Your task to perform on an android device: Search for "razer kraken" on walmart.com, select the first entry, and add it to the cart. Image 0: 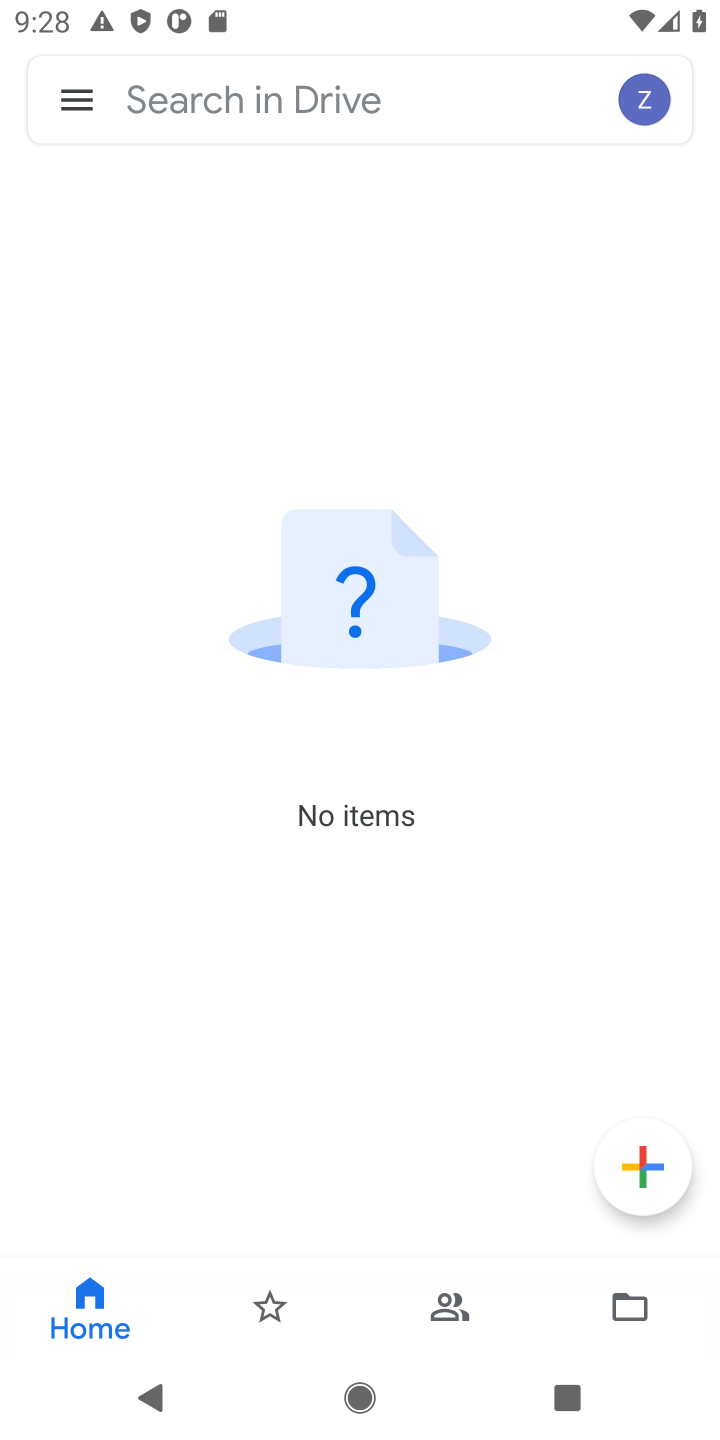
Step 0: press home button
Your task to perform on an android device: Search for "razer kraken" on walmart.com, select the first entry, and add it to the cart. Image 1: 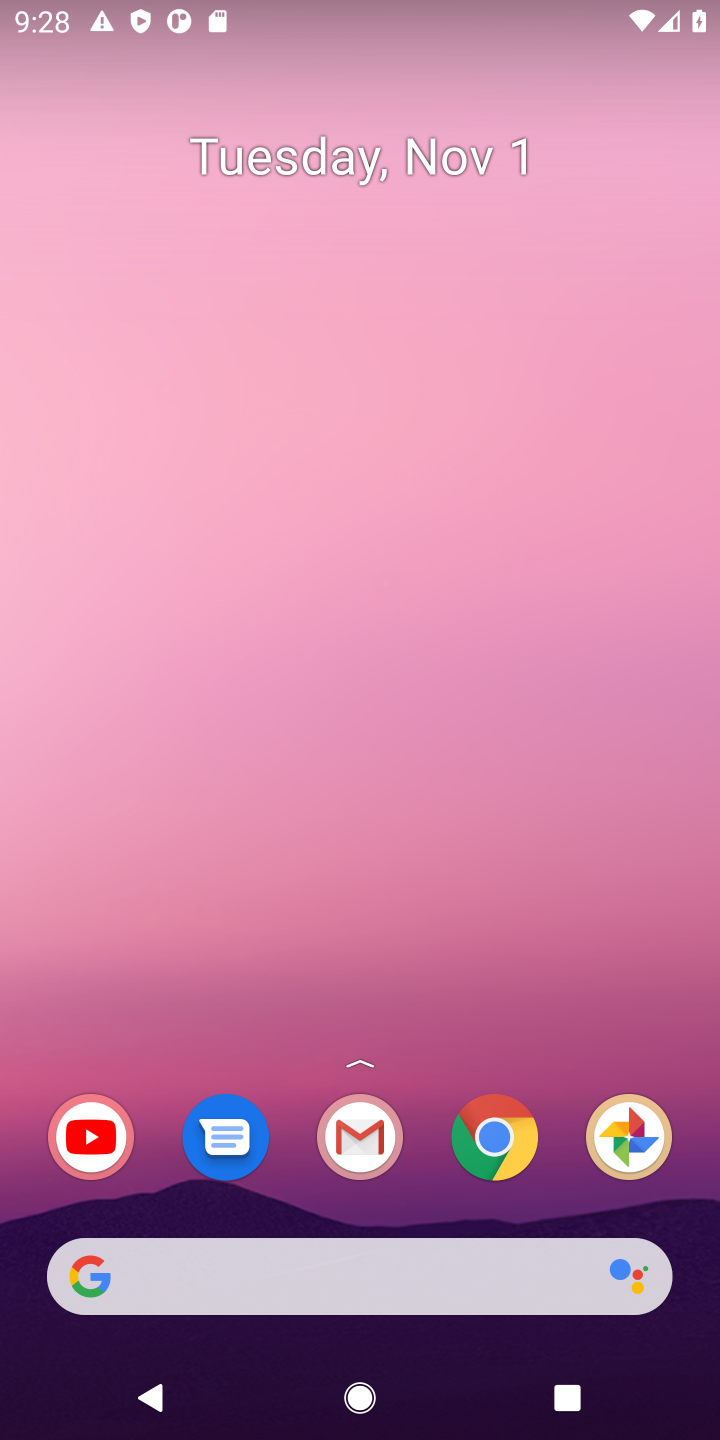
Step 1: click (518, 1136)
Your task to perform on an android device: Search for "razer kraken" on walmart.com, select the first entry, and add it to the cart. Image 2: 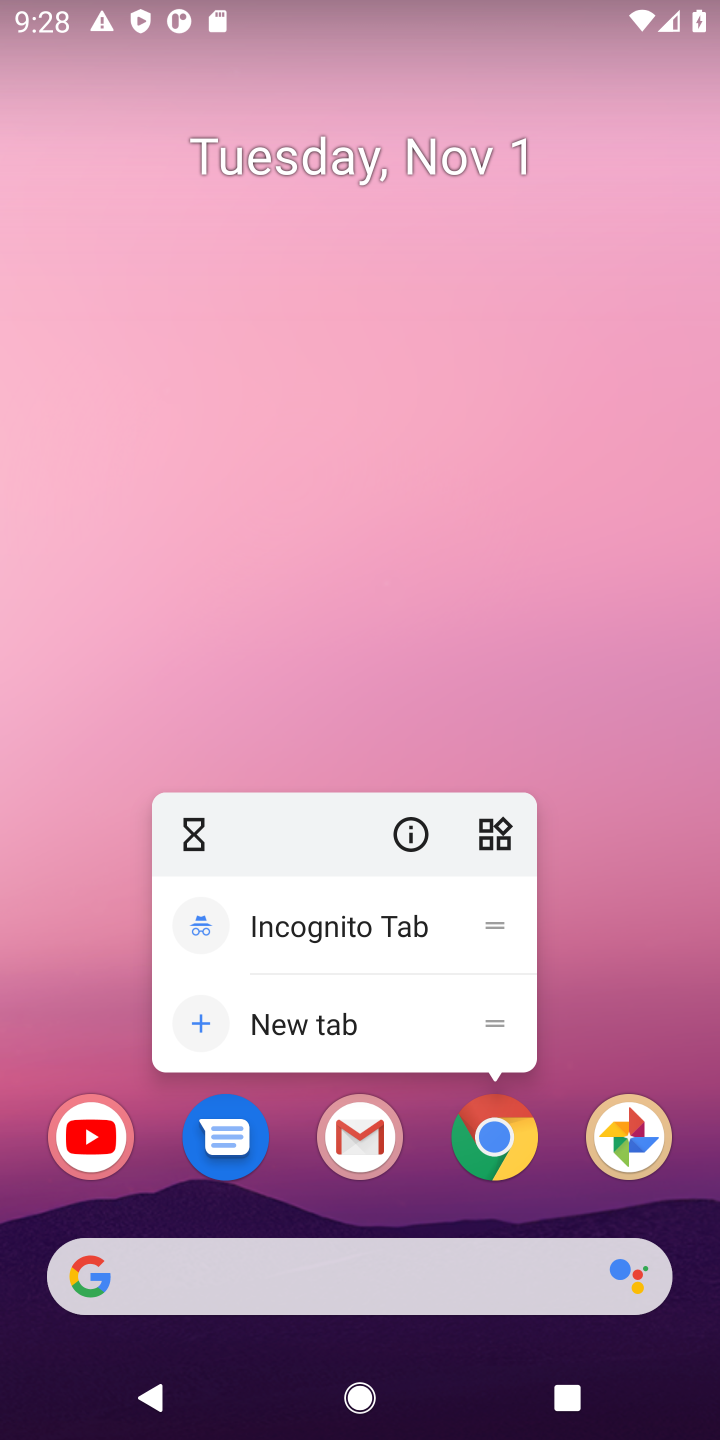
Step 2: click (518, 1137)
Your task to perform on an android device: Search for "razer kraken" on walmart.com, select the first entry, and add it to the cart. Image 3: 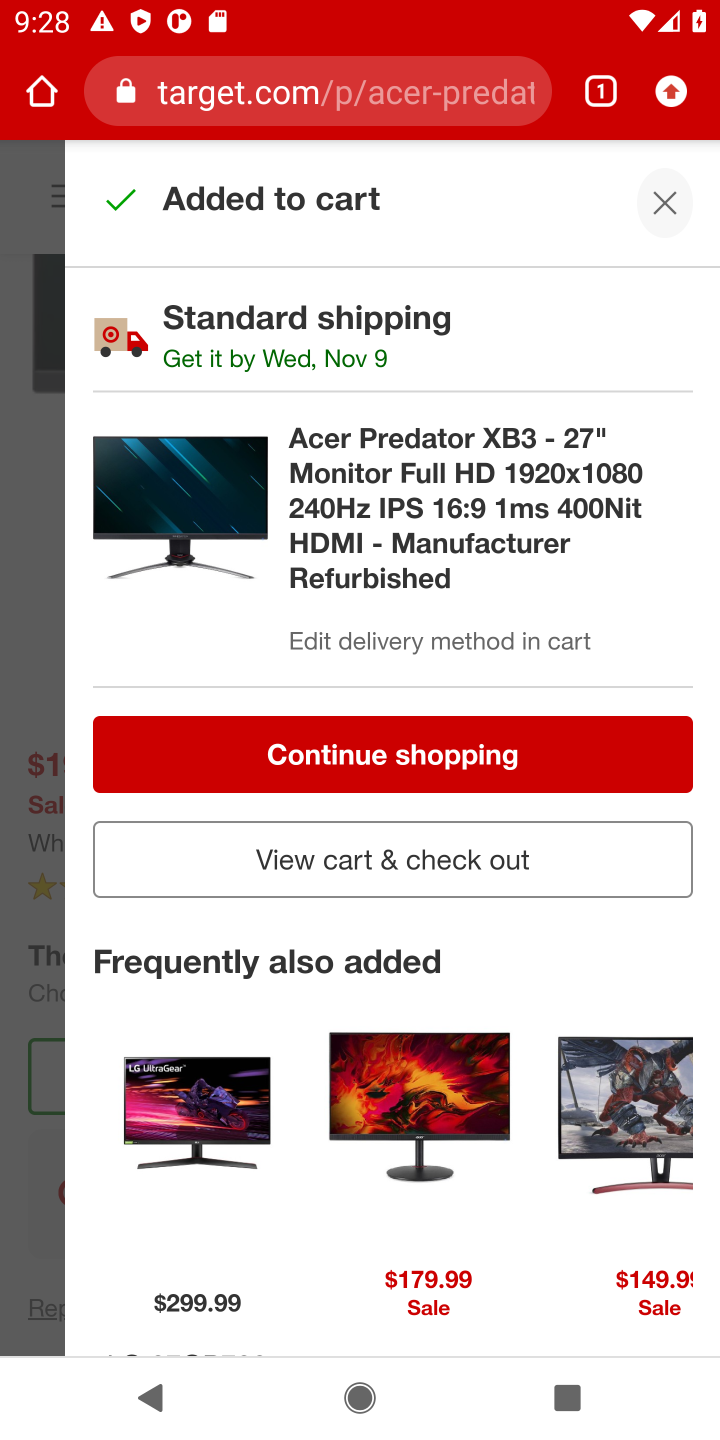
Step 3: click (323, 109)
Your task to perform on an android device: Search for "razer kraken" on walmart.com, select the first entry, and add it to the cart. Image 4: 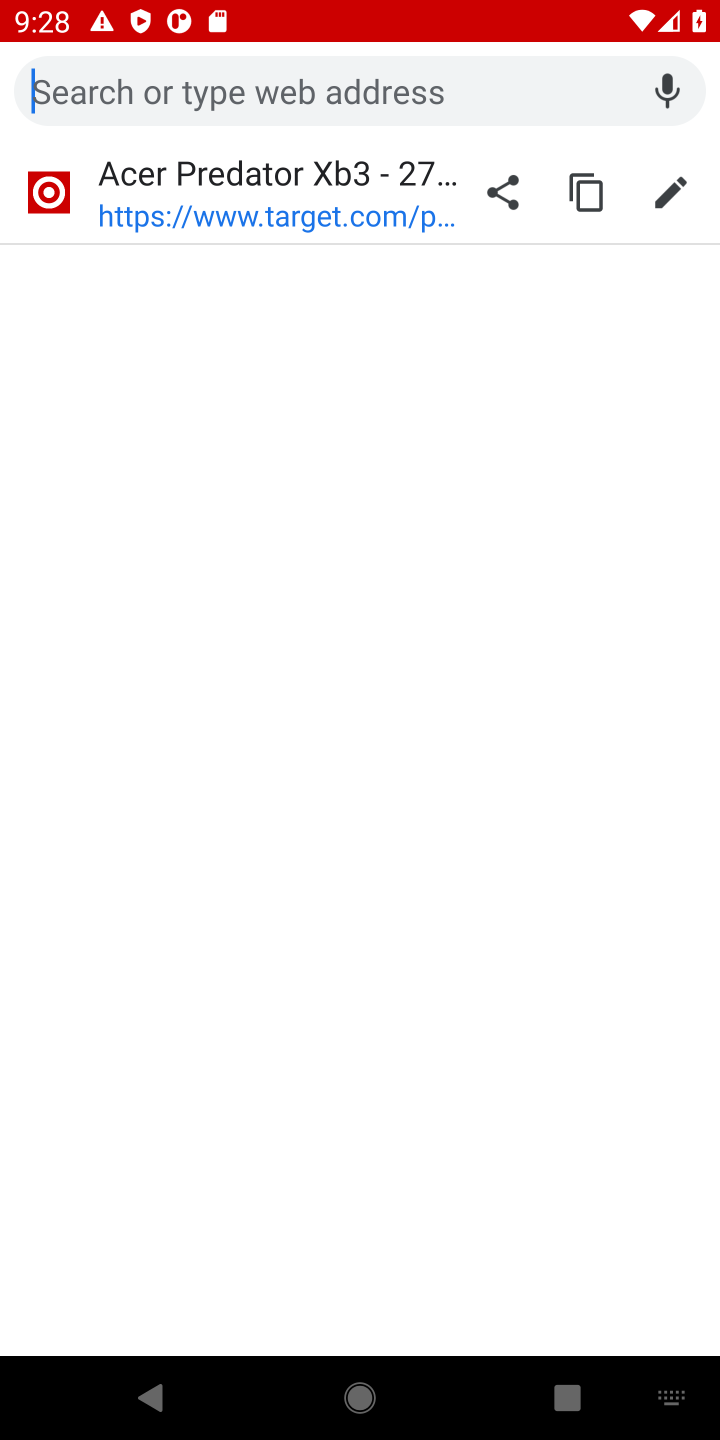
Step 4: type "walmart.com"
Your task to perform on an android device: Search for "razer kraken" on walmart.com, select the first entry, and add it to the cart. Image 5: 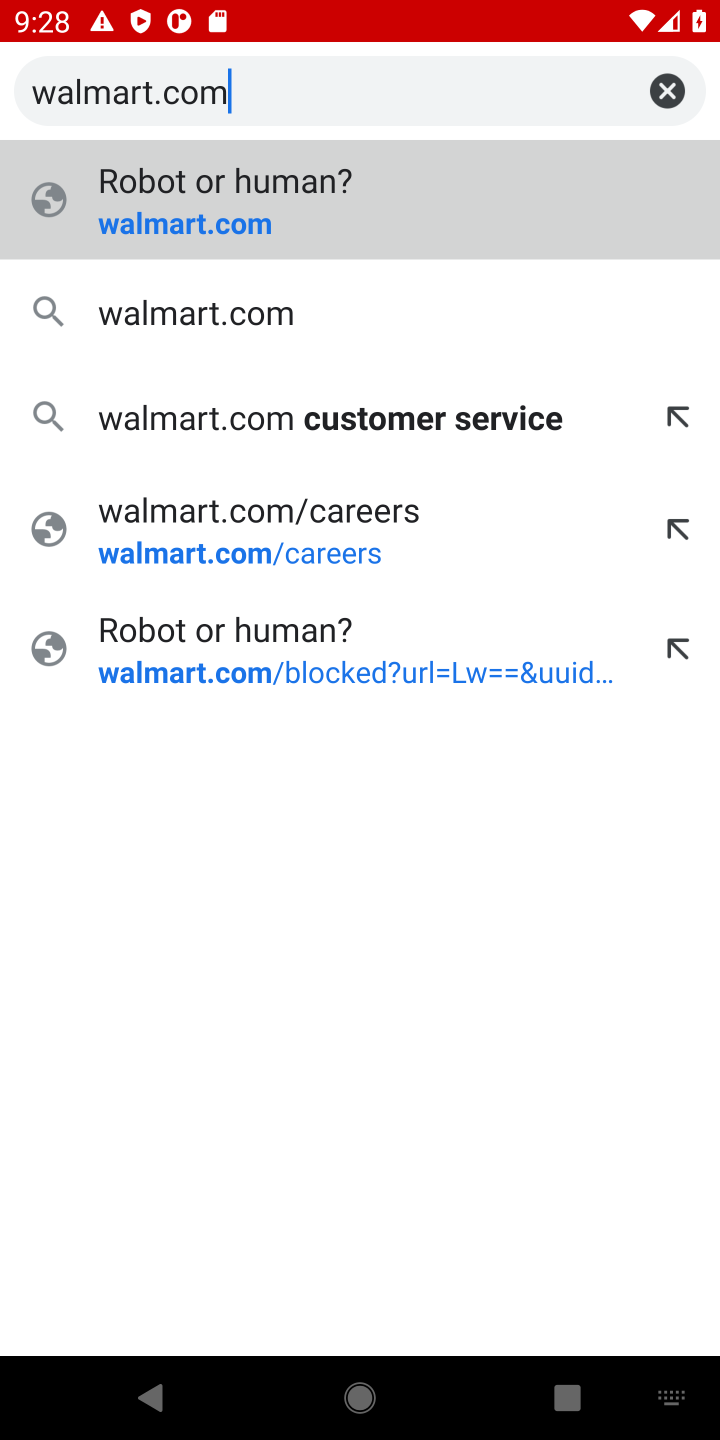
Step 5: click (287, 300)
Your task to perform on an android device: Search for "razer kraken" on walmart.com, select the first entry, and add it to the cart. Image 6: 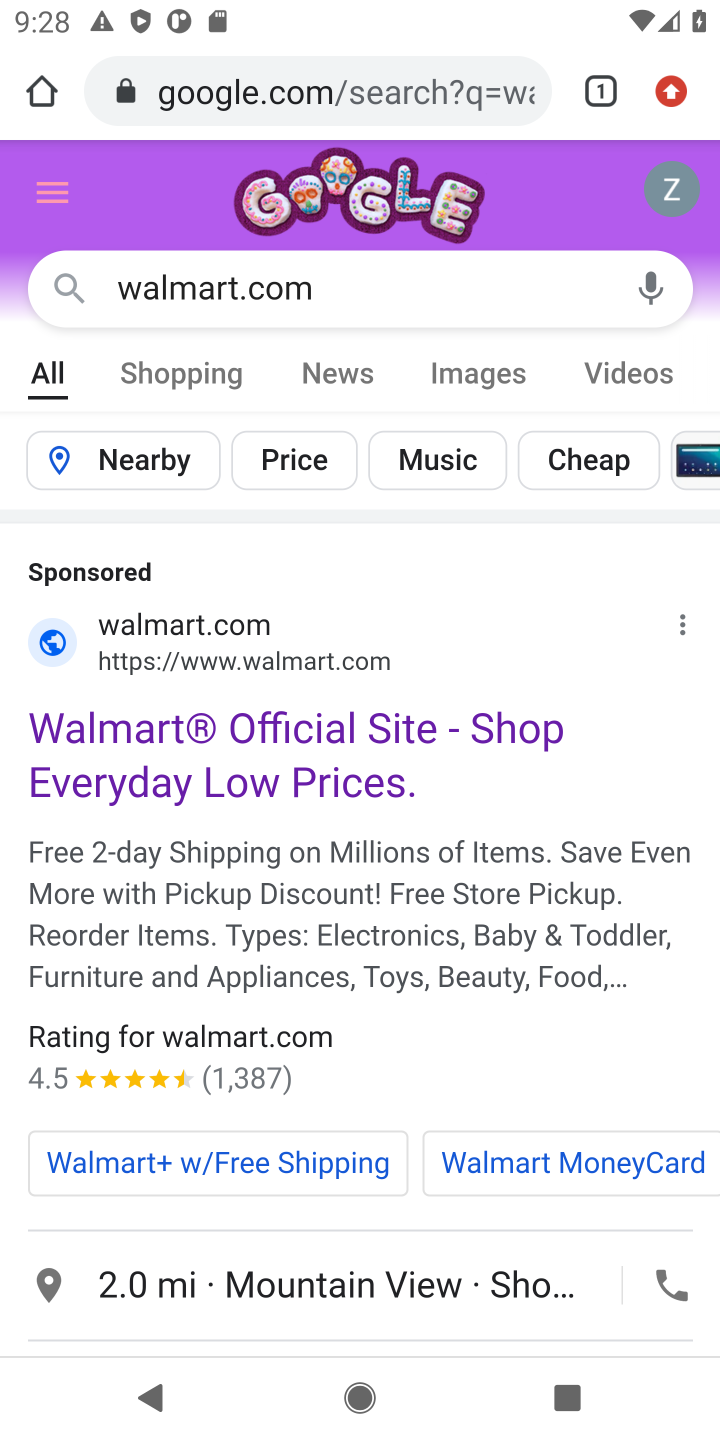
Step 6: click (158, 643)
Your task to perform on an android device: Search for "razer kraken" on walmart.com, select the first entry, and add it to the cart. Image 7: 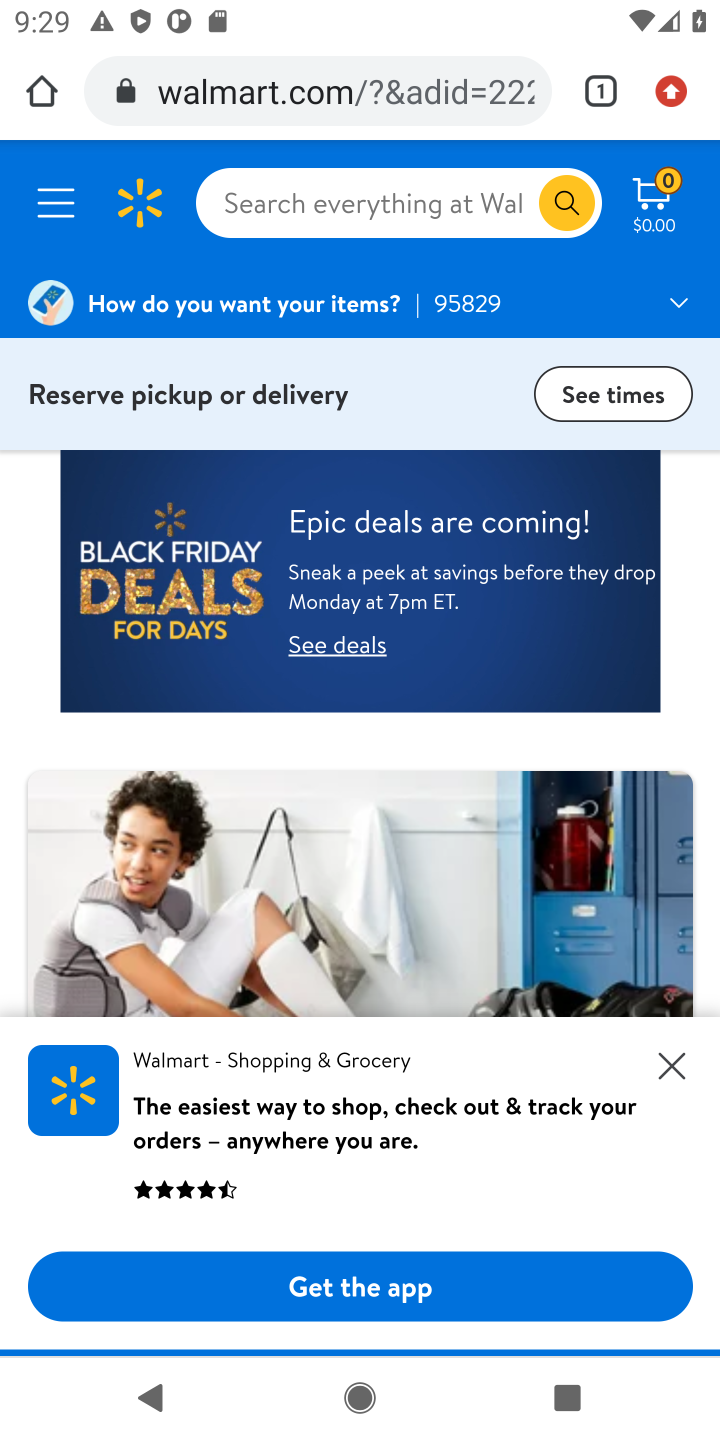
Step 7: click (382, 198)
Your task to perform on an android device: Search for "razer kraken" on walmart.com, select the first entry, and add it to the cart. Image 8: 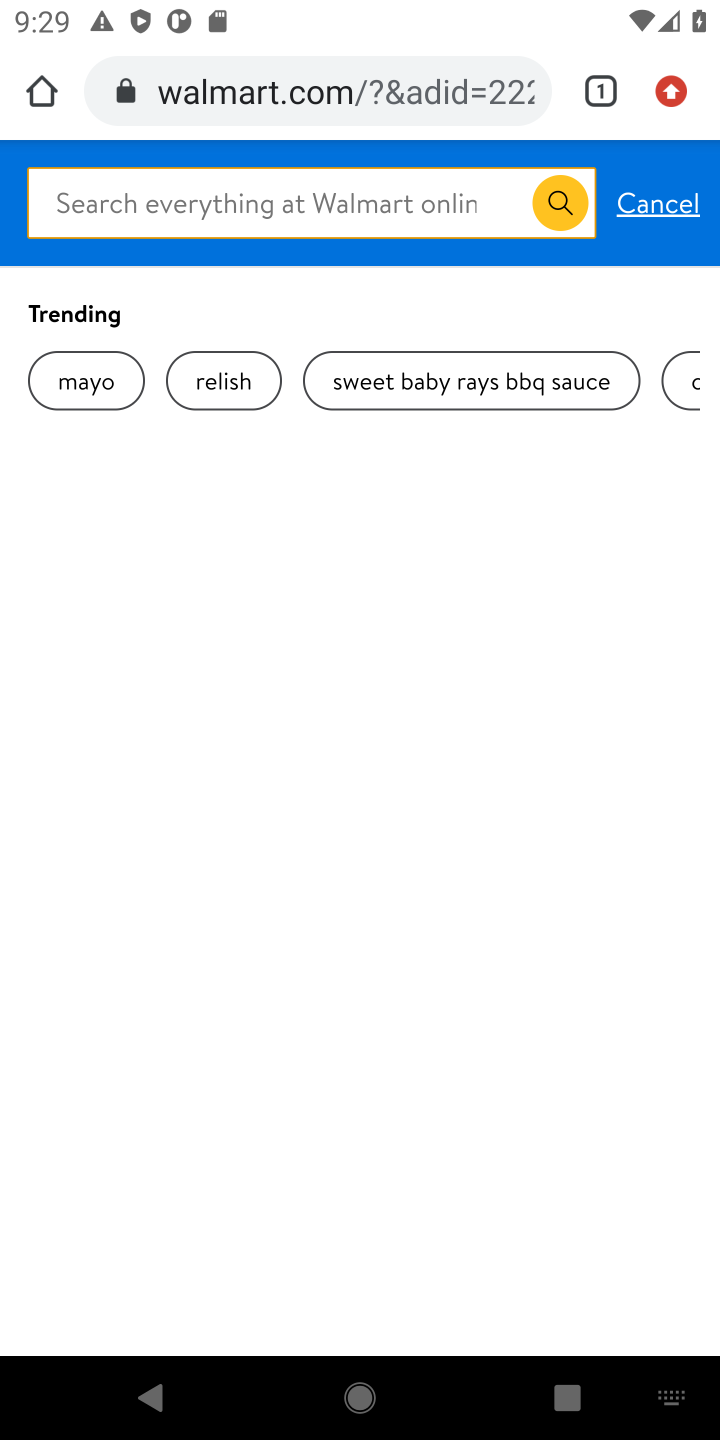
Step 8: type "razer kraken"
Your task to perform on an android device: Search for "razer kraken" on walmart.com, select the first entry, and add it to the cart. Image 9: 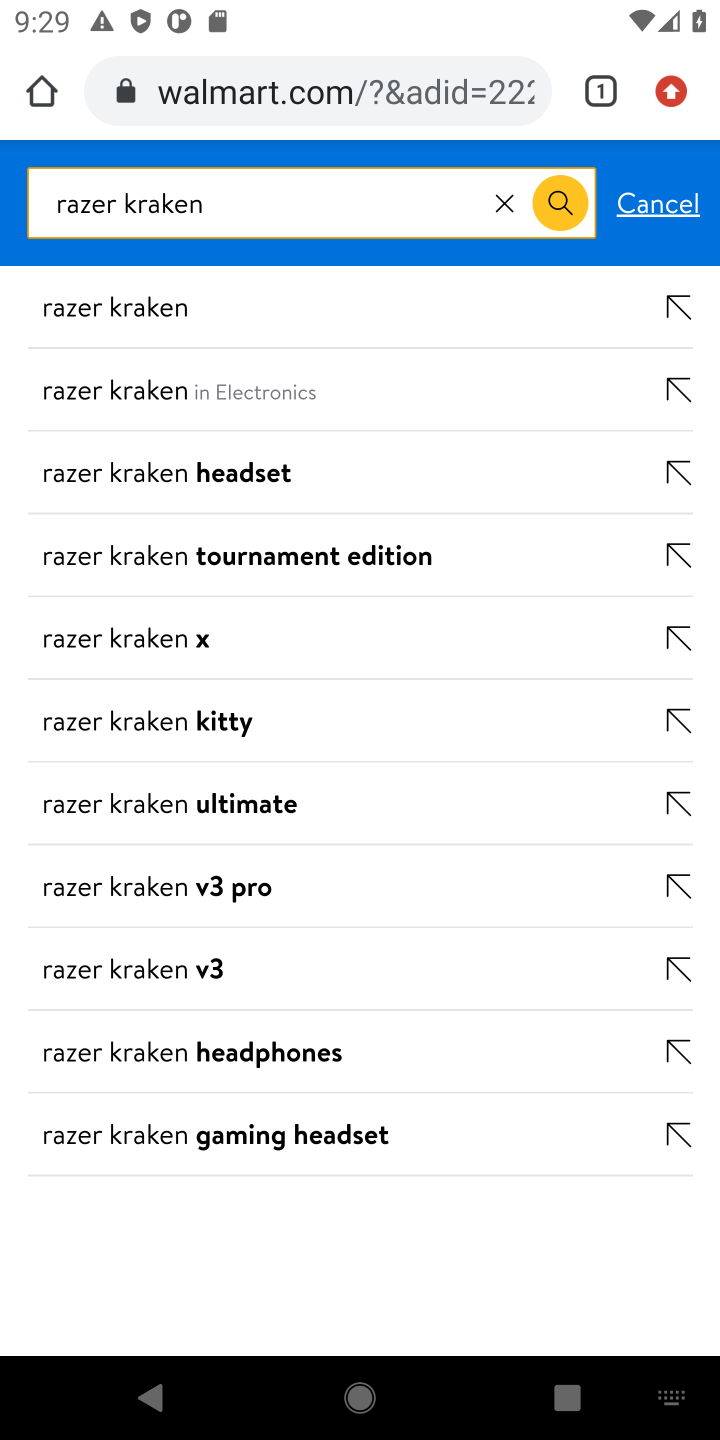
Step 9: click (176, 313)
Your task to perform on an android device: Search for "razer kraken" on walmart.com, select the first entry, and add it to the cart. Image 10: 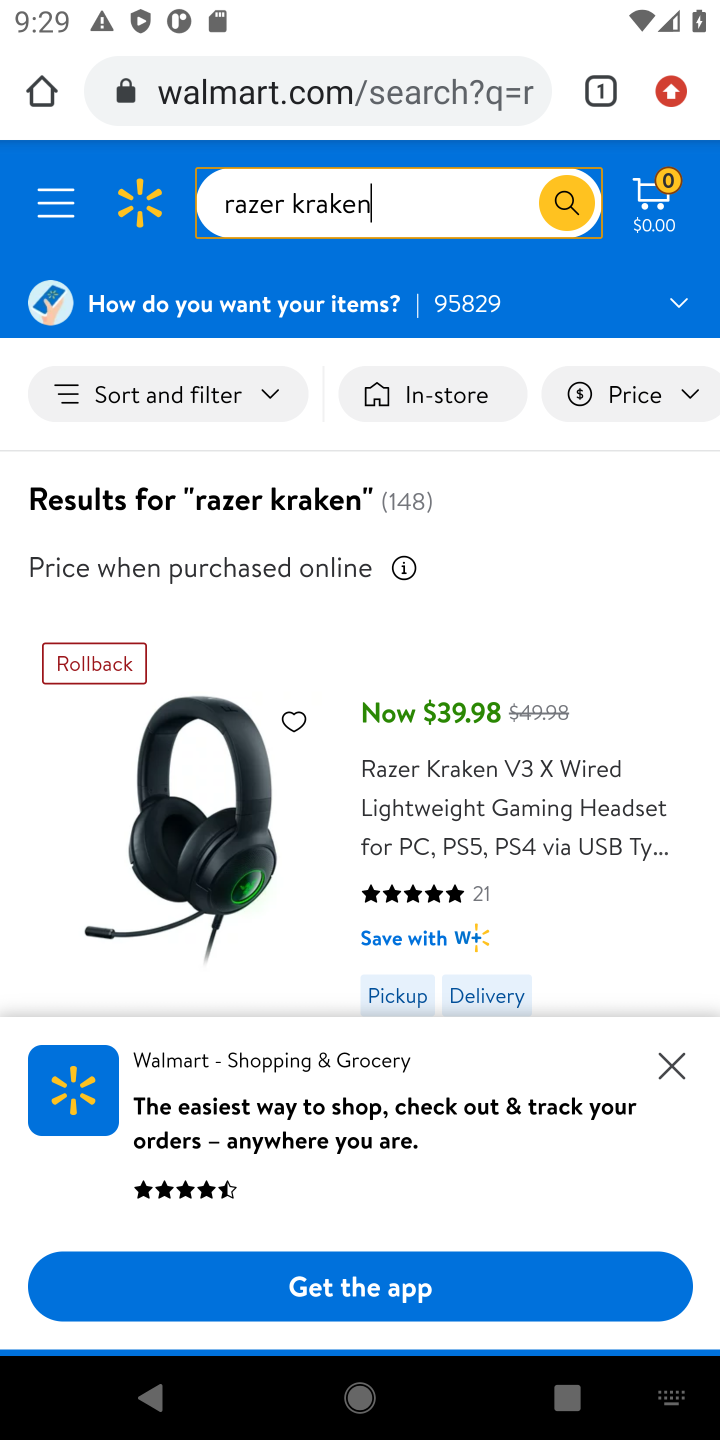
Step 10: click (114, 840)
Your task to perform on an android device: Search for "razer kraken" on walmart.com, select the first entry, and add it to the cart. Image 11: 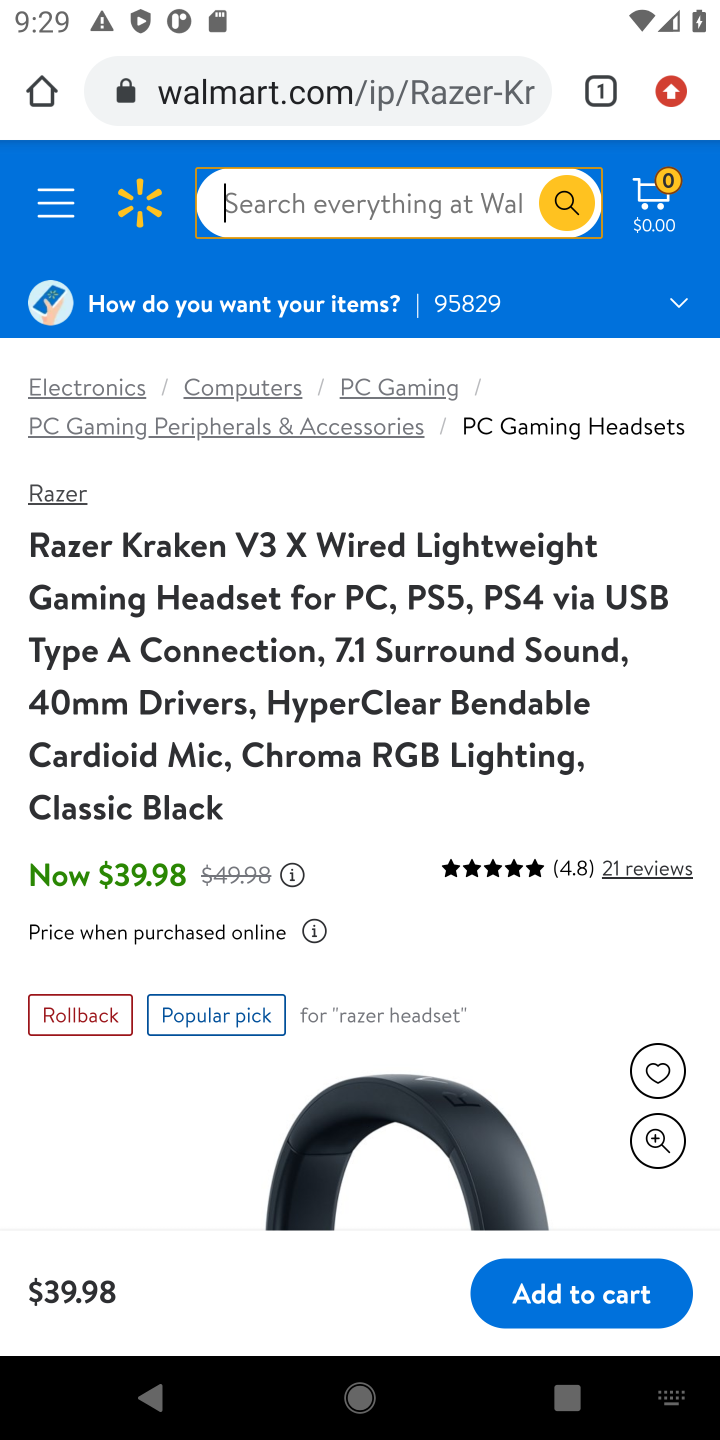
Step 11: click (618, 1286)
Your task to perform on an android device: Search for "razer kraken" on walmart.com, select the first entry, and add it to the cart. Image 12: 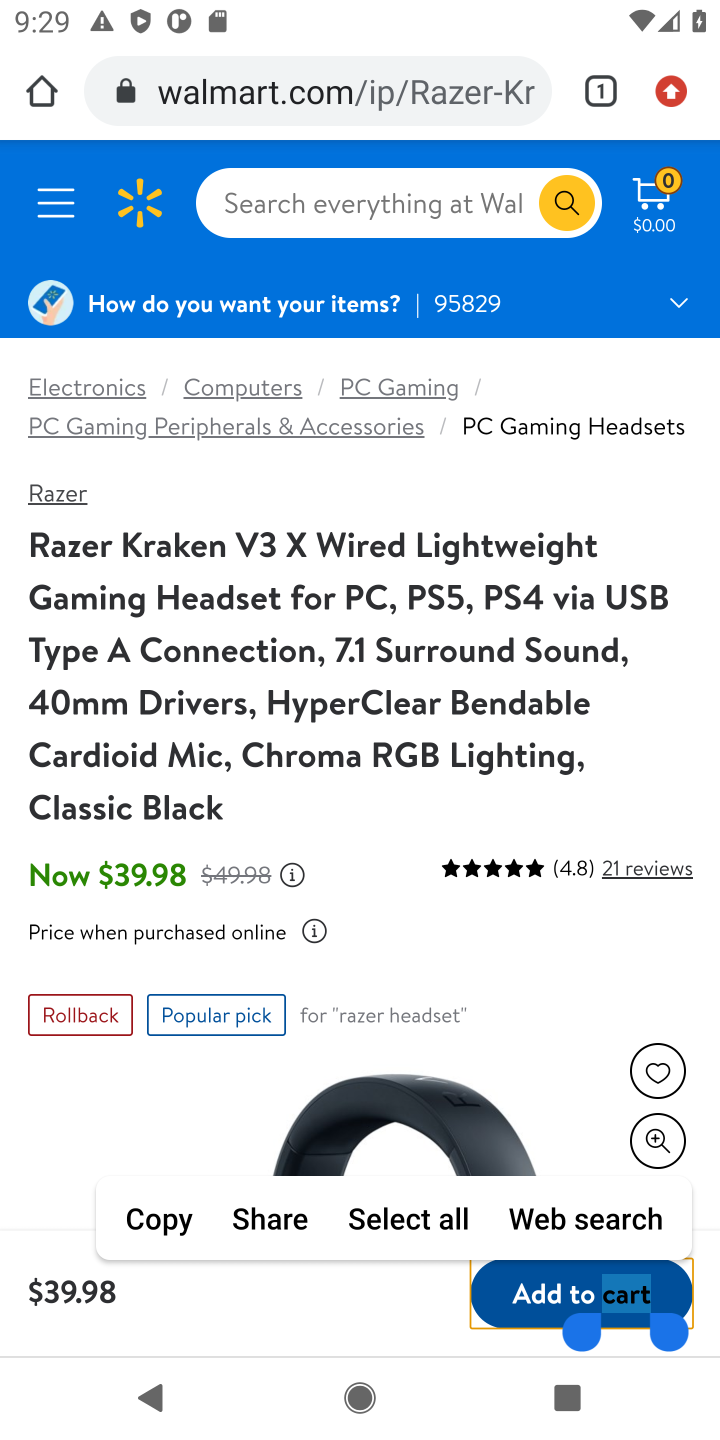
Step 12: click (709, 1113)
Your task to perform on an android device: Search for "razer kraken" on walmart.com, select the first entry, and add it to the cart. Image 13: 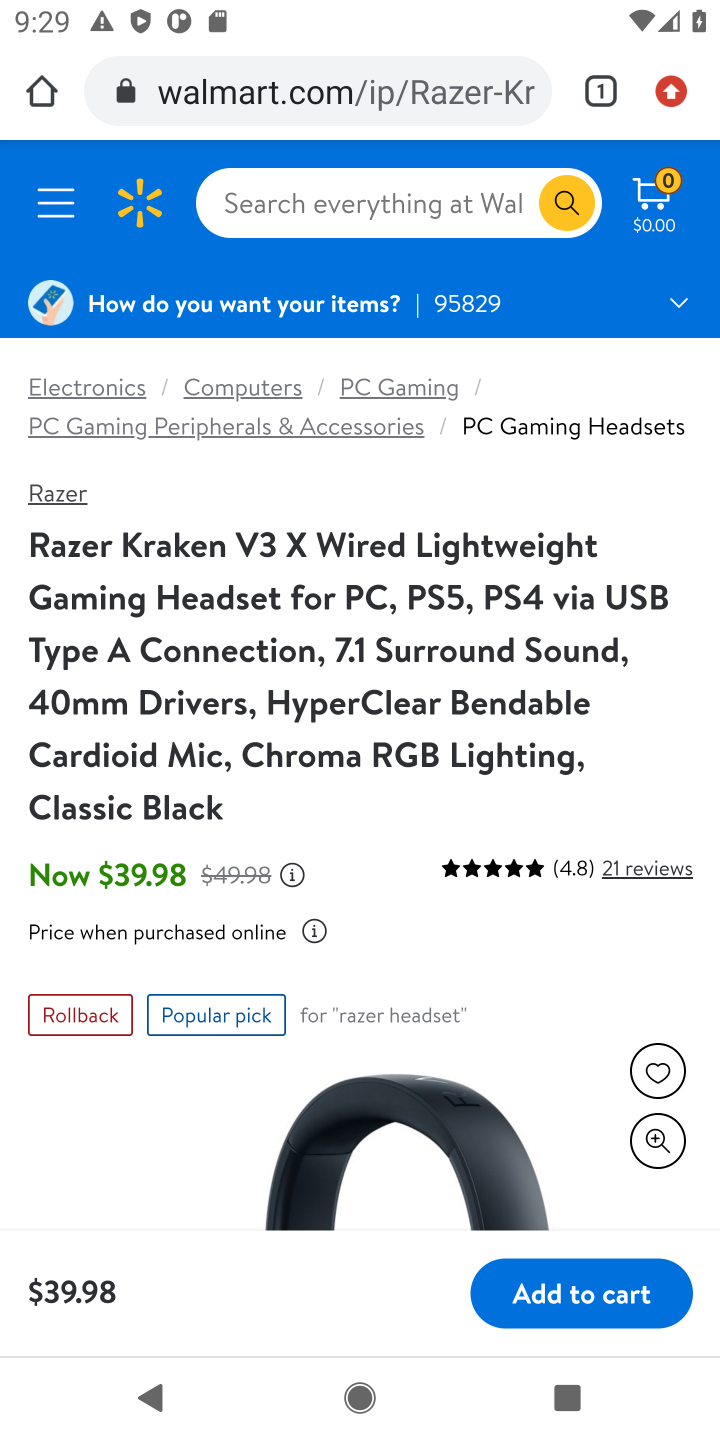
Step 13: click (574, 1293)
Your task to perform on an android device: Search for "razer kraken" on walmart.com, select the first entry, and add it to the cart. Image 14: 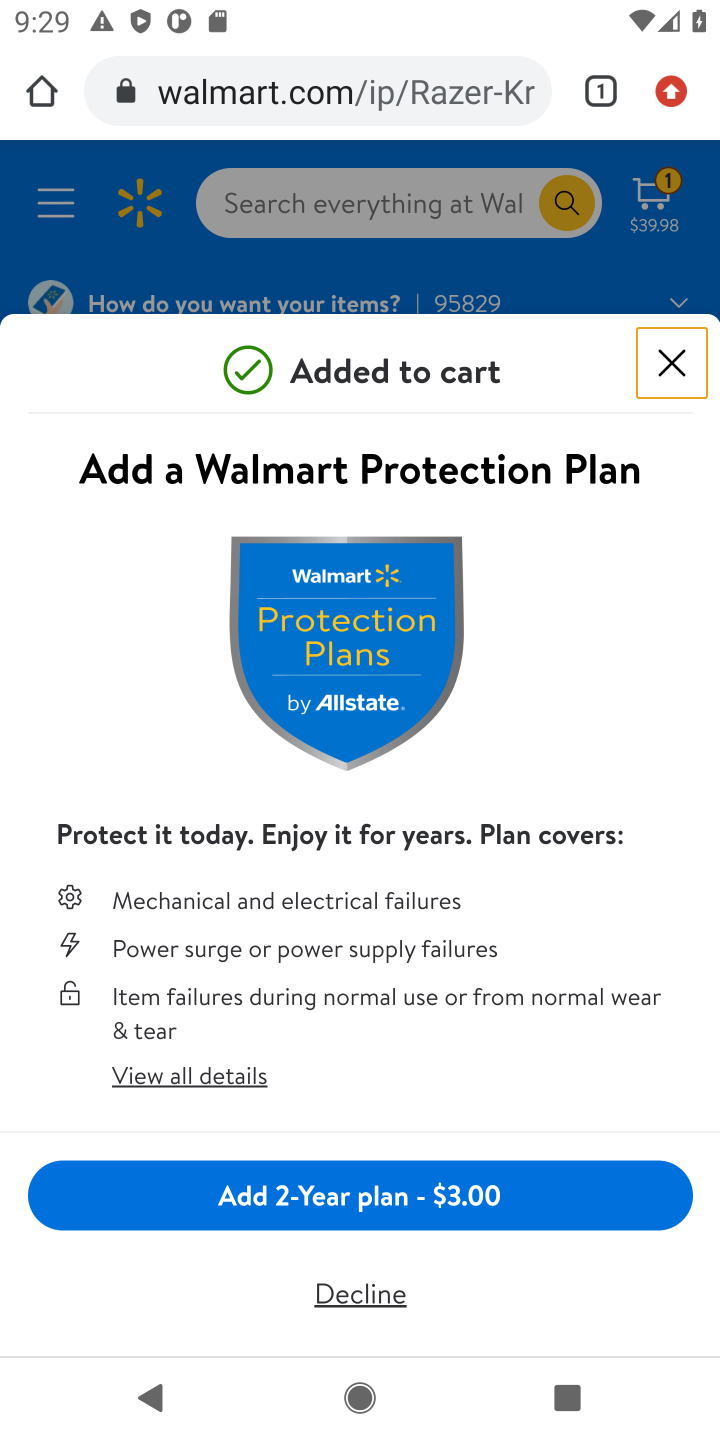
Step 14: task complete